Your task to perform on an android device: allow notifications from all sites in the chrome app Image 0: 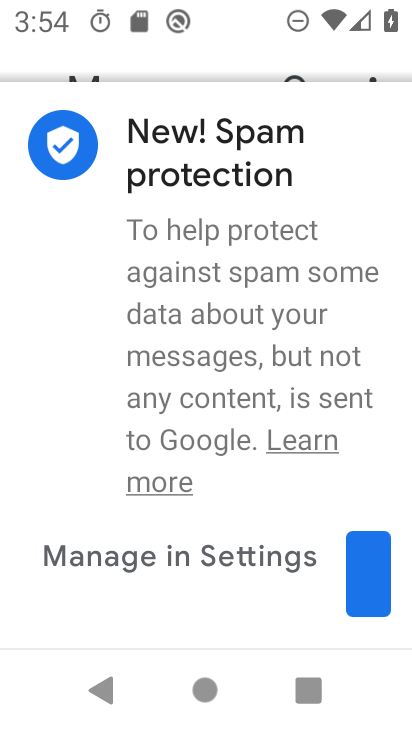
Step 0: click (330, 489)
Your task to perform on an android device: allow notifications from all sites in the chrome app Image 1: 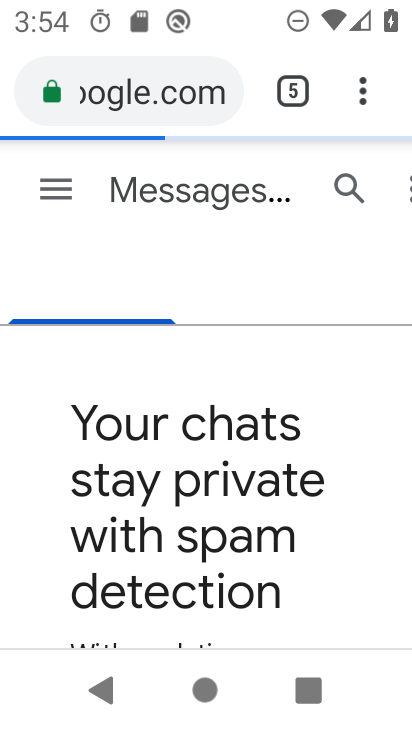
Step 1: press home button
Your task to perform on an android device: allow notifications from all sites in the chrome app Image 2: 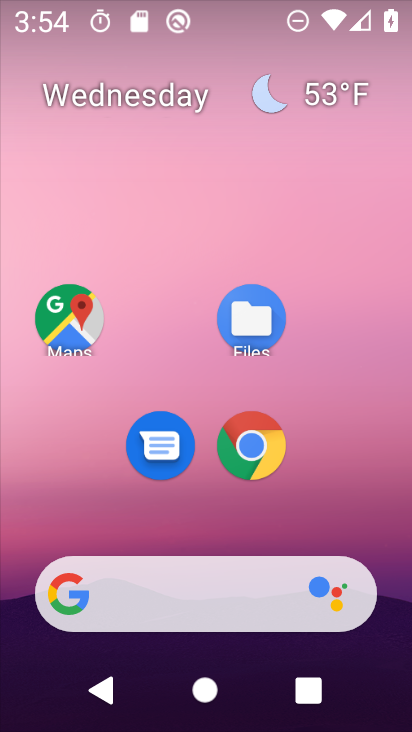
Step 2: click (334, 473)
Your task to perform on an android device: allow notifications from all sites in the chrome app Image 3: 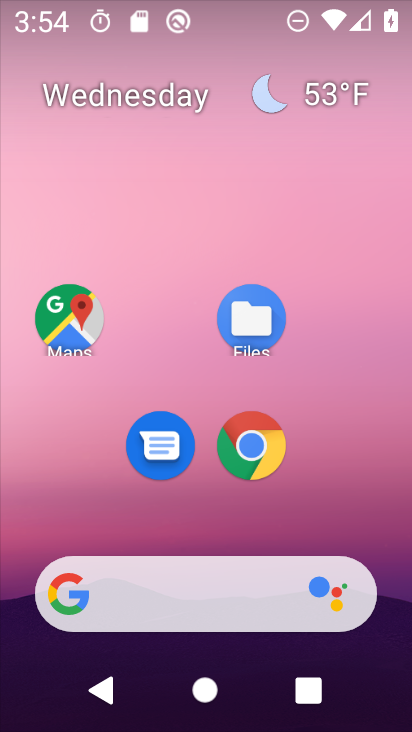
Step 3: drag from (334, 473) to (314, 18)
Your task to perform on an android device: allow notifications from all sites in the chrome app Image 4: 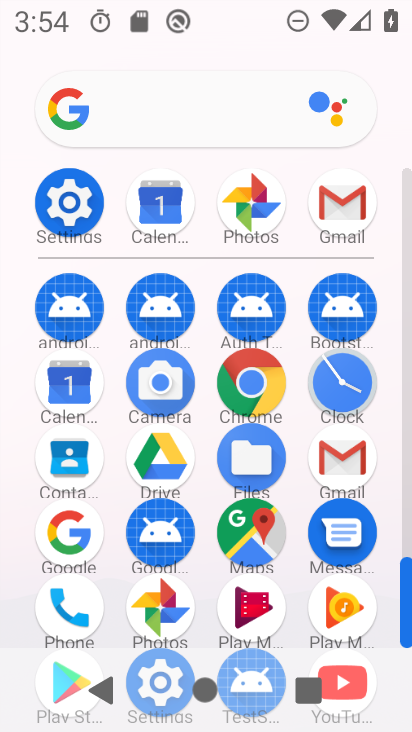
Step 4: click (263, 378)
Your task to perform on an android device: allow notifications from all sites in the chrome app Image 5: 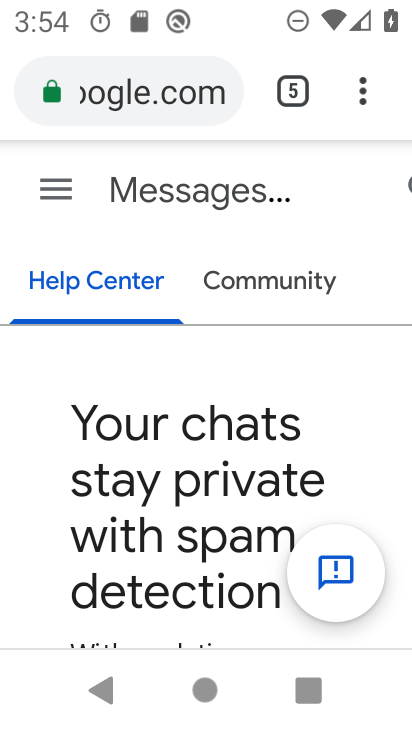
Step 5: click (384, 64)
Your task to perform on an android device: allow notifications from all sites in the chrome app Image 6: 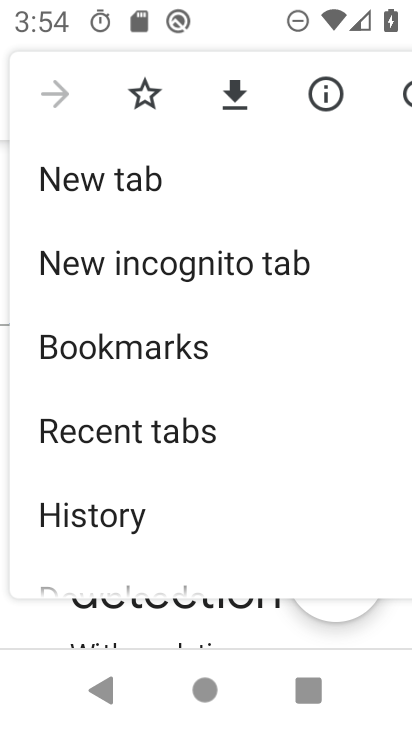
Step 6: click (267, 521)
Your task to perform on an android device: allow notifications from all sites in the chrome app Image 7: 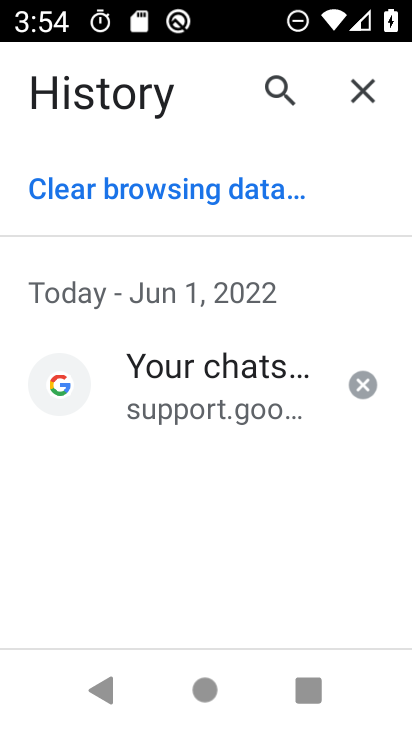
Step 7: press back button
Your task to perform on an android device: allow notifications from all sites in the chrome app Image 8: 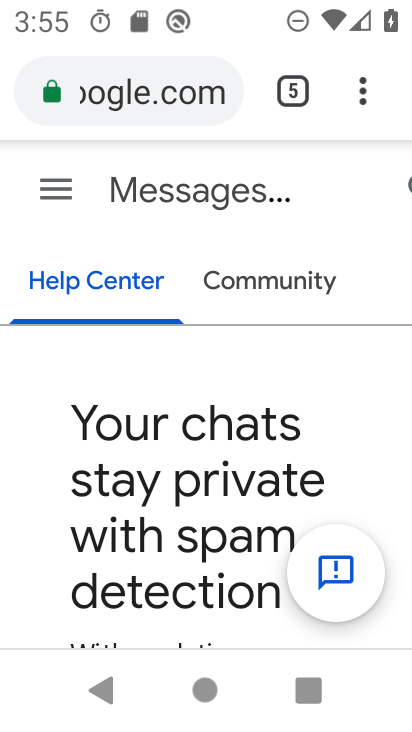
Step 8: click (359, 92)
Your task to perform on an android device: allow notifications from all sites in the chrome app Image 9: 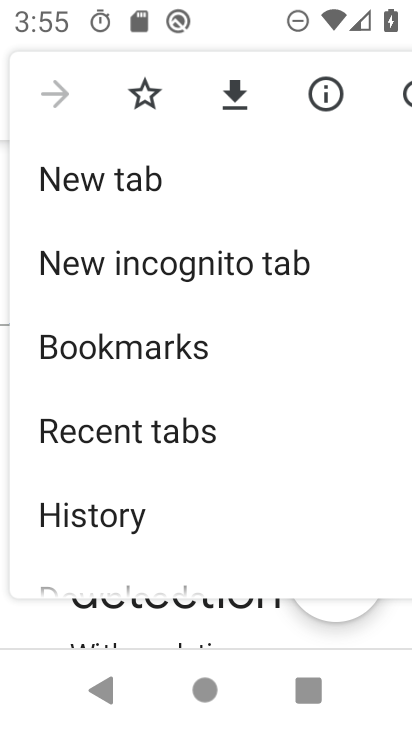
Step 9: drag from (350, 369) to (319, 49)
Your task to perform on an android device: allow notifications from all sites in the chrome app Image 10: 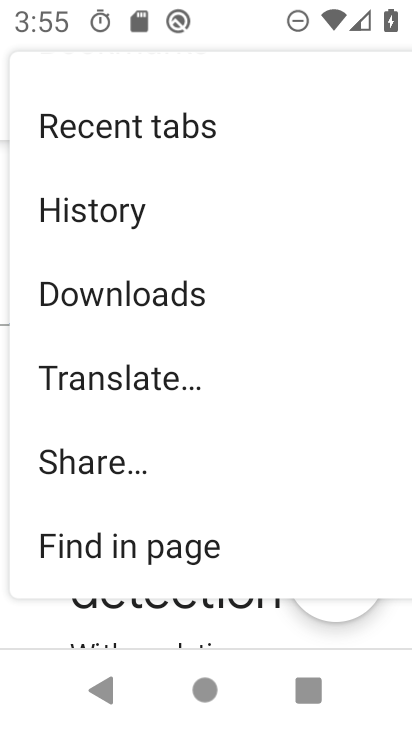
Step 10: drag from (276, 458) to (273, 242)
Your task to perform on an android device: allow notifications from all sites in the chrome app Image 11: 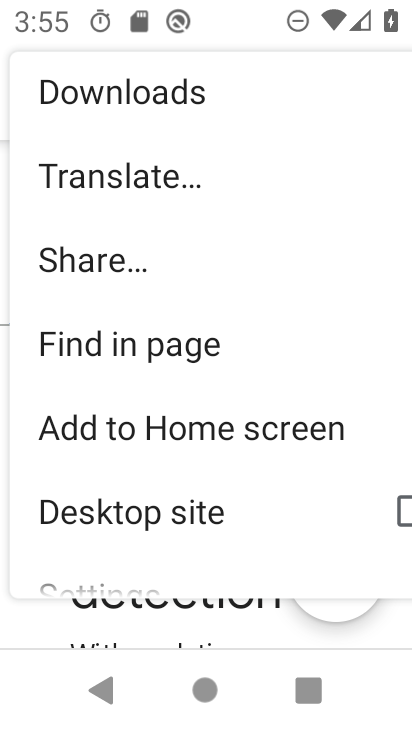
Step 11: drag from (275, 503) to (264, 275)
Your task to perform on an android device: allow notifications from all sites in the chrome app Image 12: 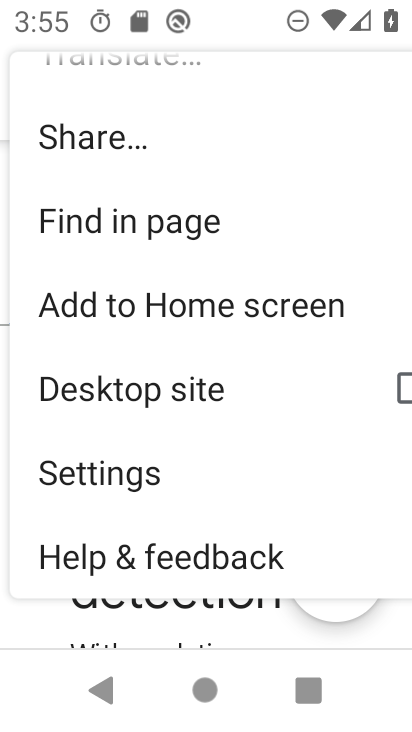
Step 12: click (129, 469)
Your task to perform on an android device: allow notifications from all sites in the chrome app Image 13: 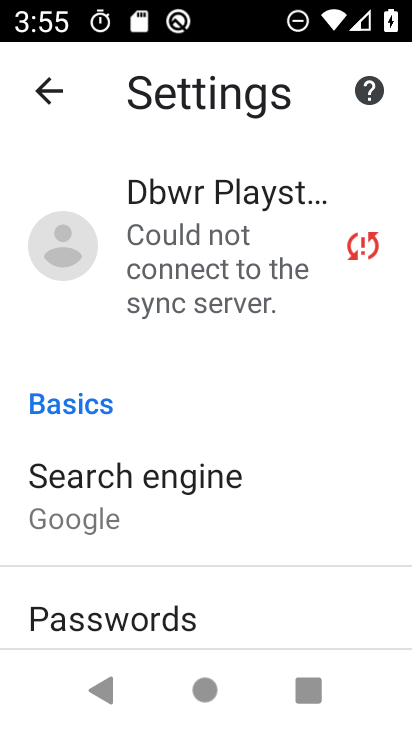
Step 13: drag from (281, 605) to (247, 285)
Your task to perform on an android device: allow notifications from all sites in the chrome app Image 14: 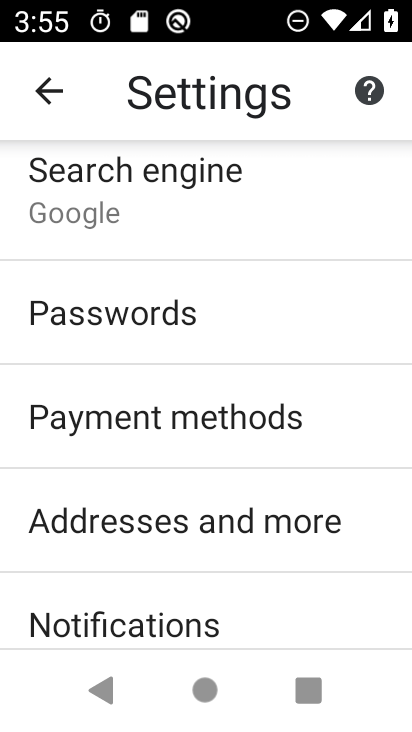
Step 14: click (254, 609)
Your task to perform on an android device: allow notifications from all sites in the chrome app Image 15: 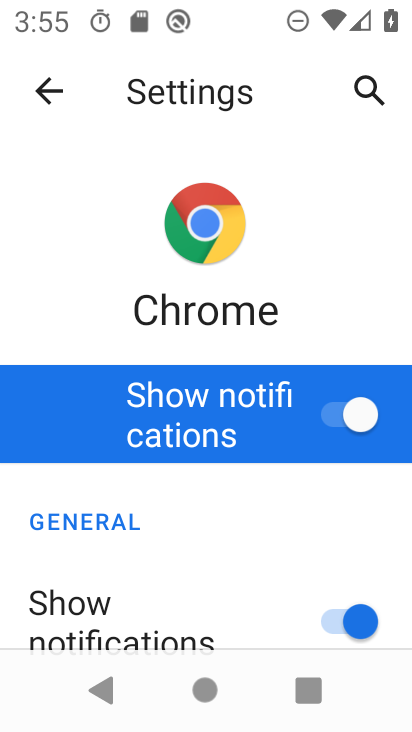
Step 15: task complete